Your task to perform on an android device: Is it going to rain tomorrow? Image 0: 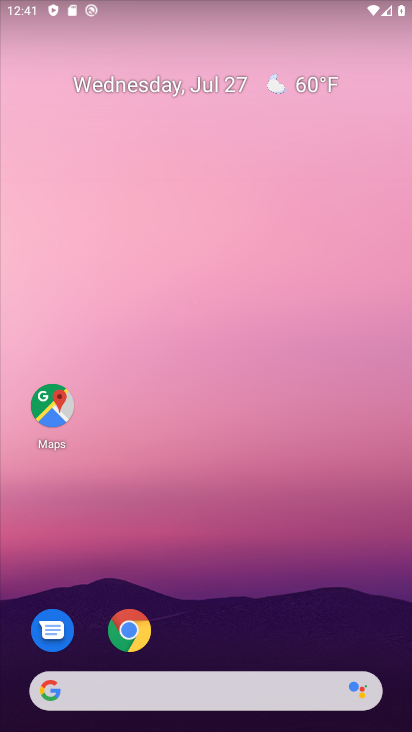
Step 0: press home button
Your task to perform on an android device: Is it going to rain tomorrow? Image 1: 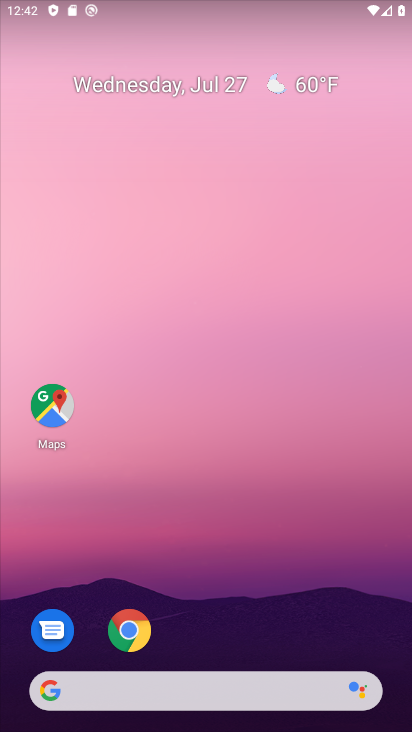
Step 1: click (48, 695)
Your task to perform on an android device: Is it going to rain tomorrow? Image 2: 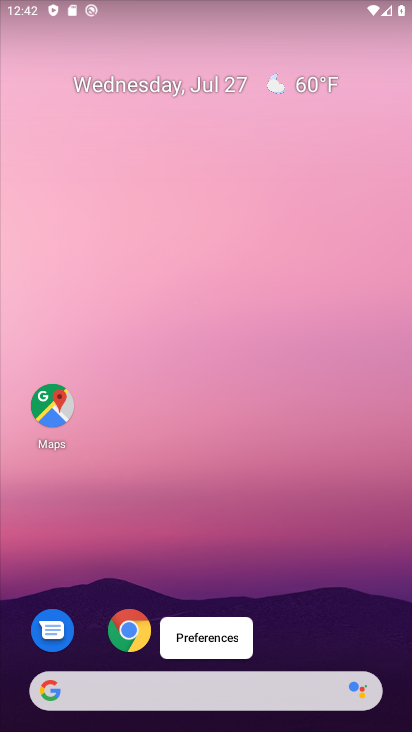
Step 2: click (48, 695)
Your task to perform on an android device: Is it going to rain tomorrow? Image 3: 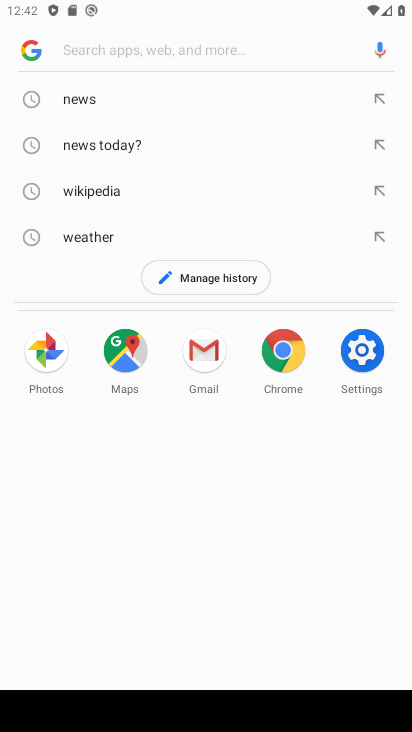
Step 3: type "rain tomorrow?"
Your task to perform on an android device: Is it going to rain tomorrow? Image 4: 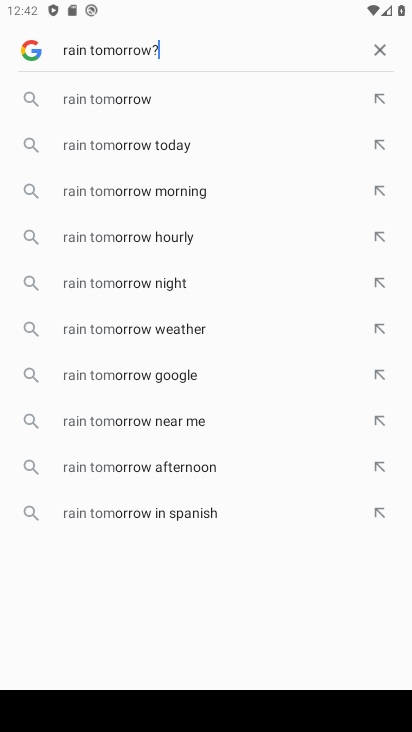
Step 4: press enter
Your task to perform on an android device: Is it going to rain tomorrow? Image 5: 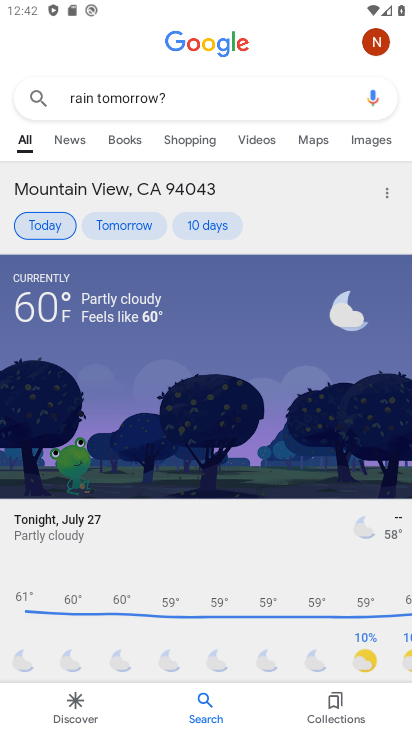
Step 5: task complete